Your task to perform on an android device: Open privacy settings Image 0: 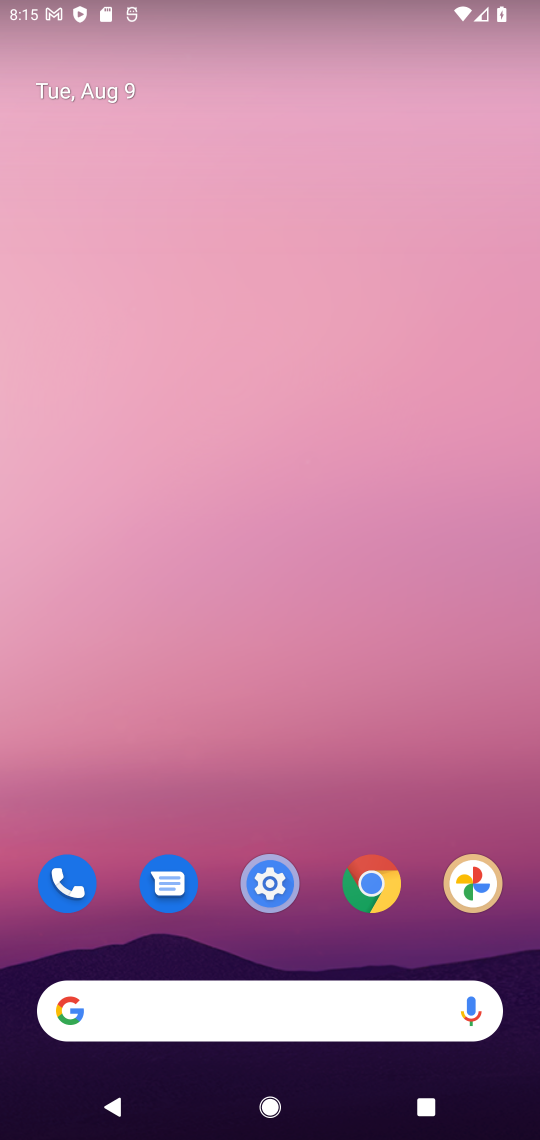
Step 0: drag from (260, 654) to (296, 72)
Your task to perform on an android device: Open privacy settings Image 1: 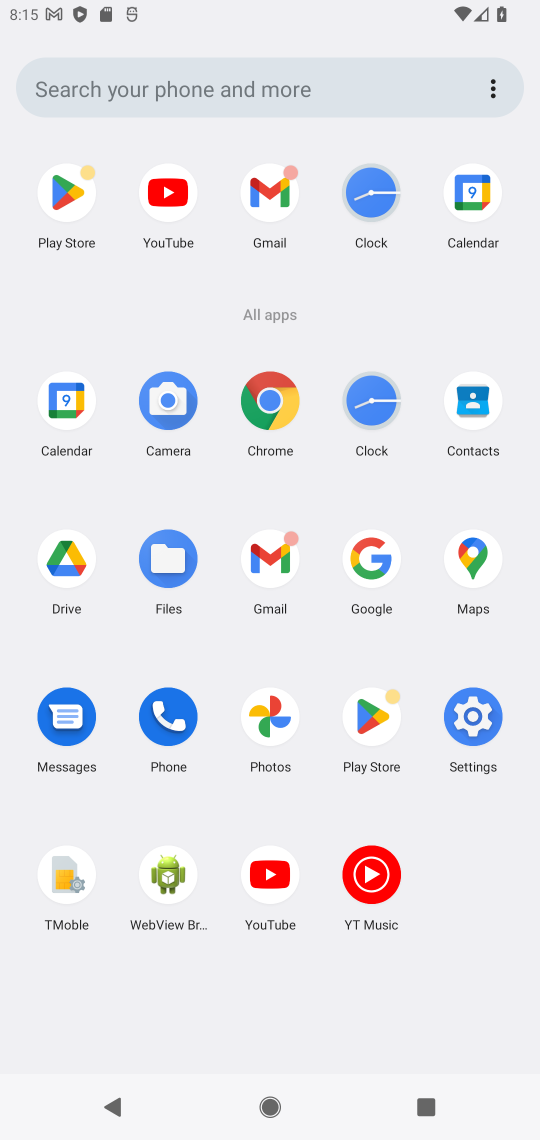
Step 1: click (482, 721)
Your task to perform on an android device: Open privacy settings Image 2: 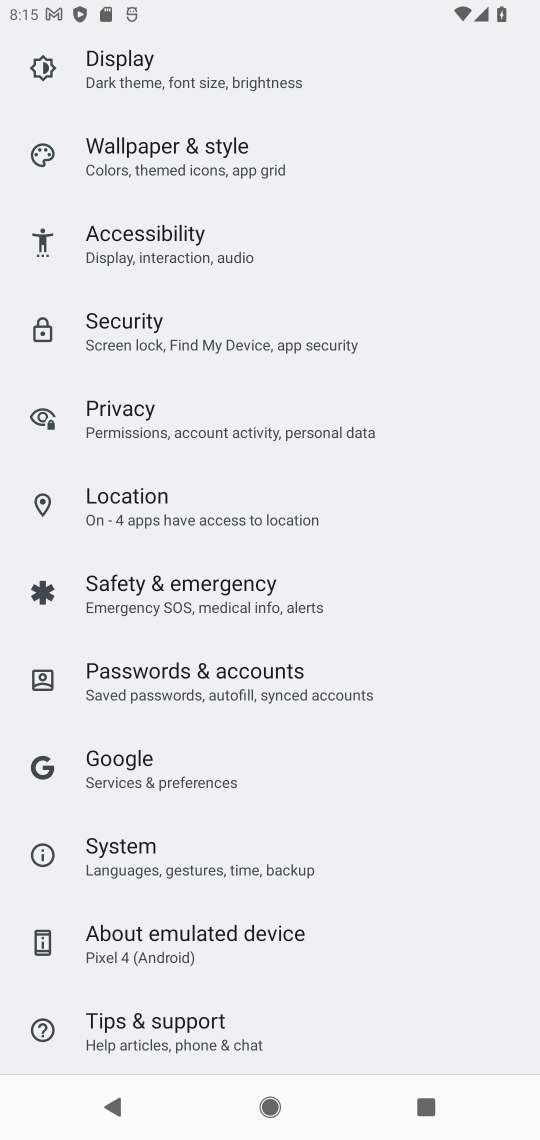
Step 2: click (205, 71)
Your task to perform on an android device: Open privacy settings Image 3: 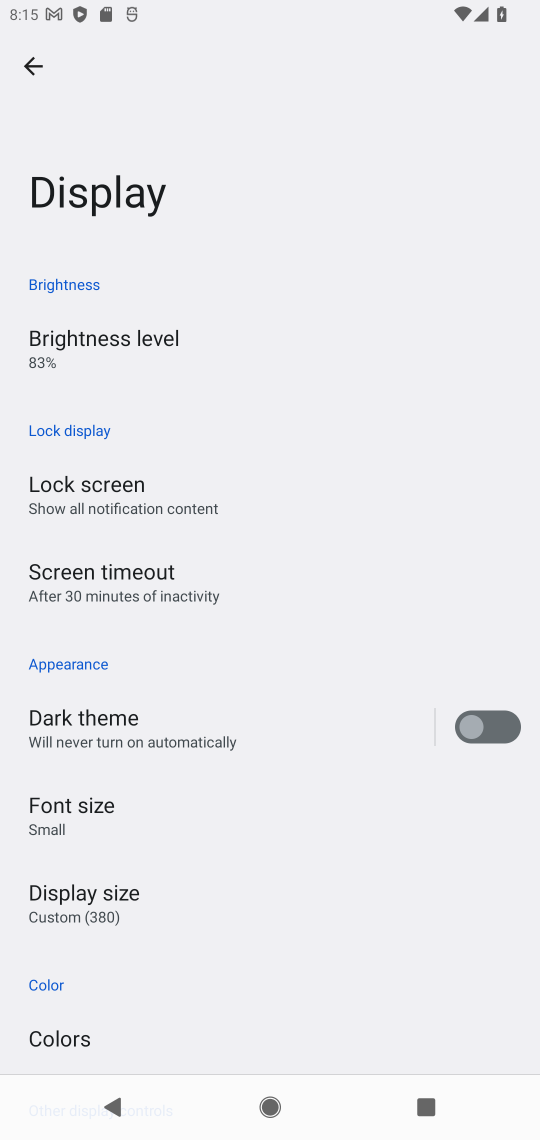
Step 3: press back button
Your task to perform on an android device: Open privacy settings Image 4: 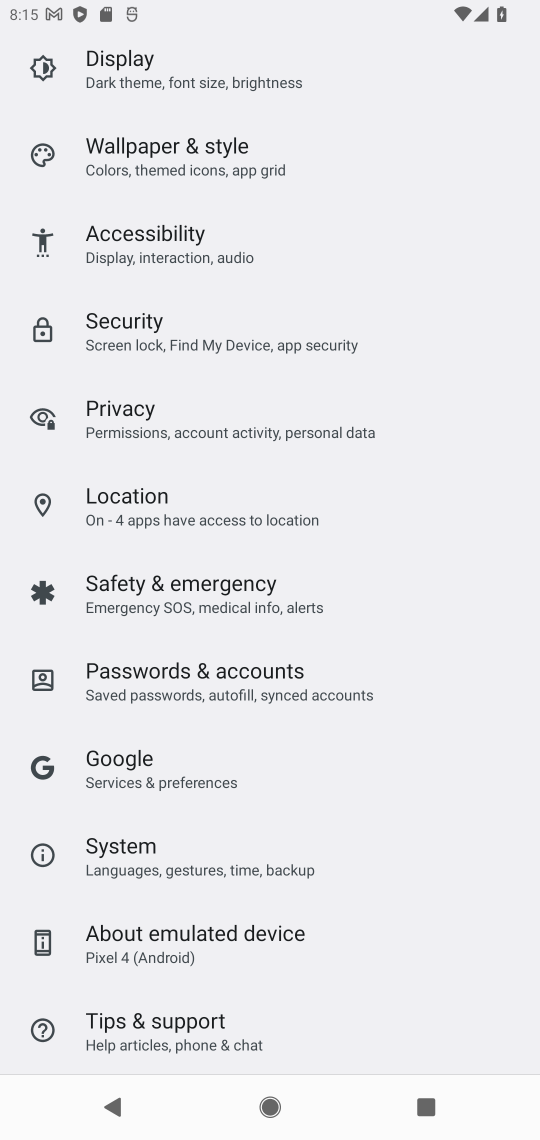
Step 4: click (161, 431)
Your task to perform on an android device: Open privacy settings Image 5: 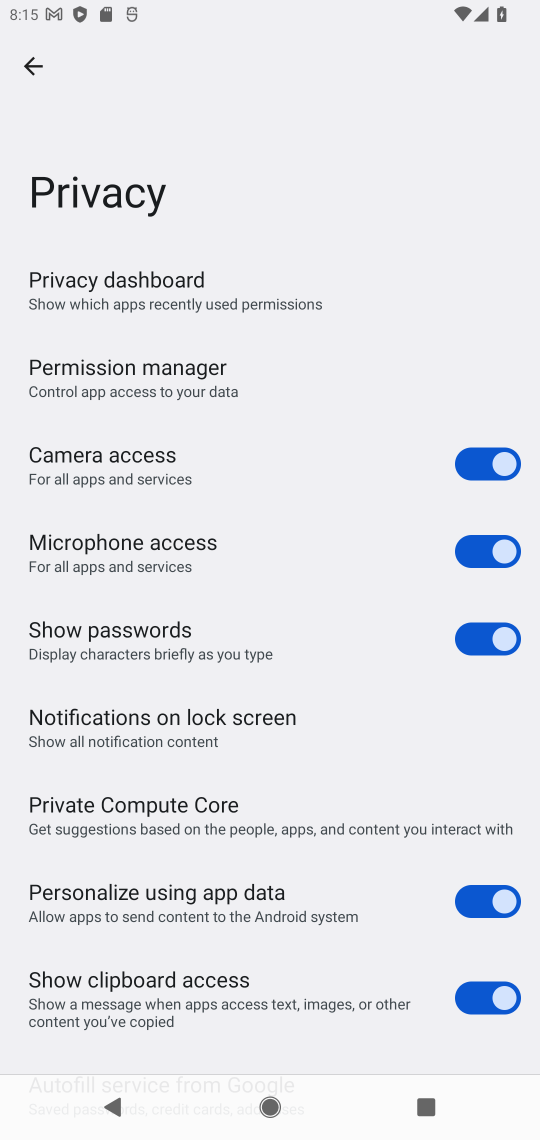
Step 5: task complete